Your task to perform on an android device: Open the calendar app, open the side menu, and click the "Day" option Image 0: 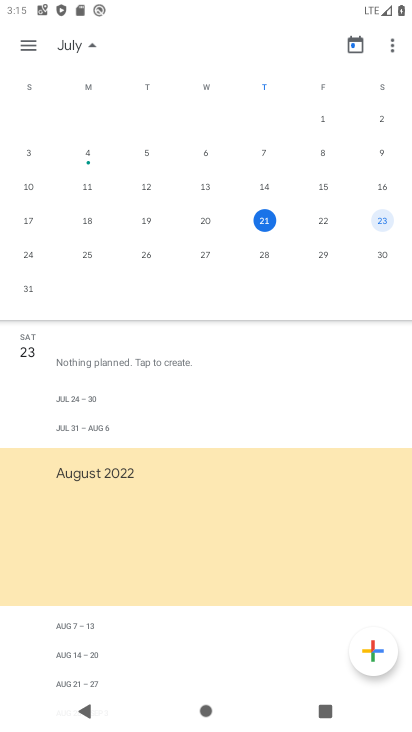
Step 0: click (23, 52)
Your task to perform on an android device: Open the calendar app, open the side menu, and click the "Day" option Image 1: 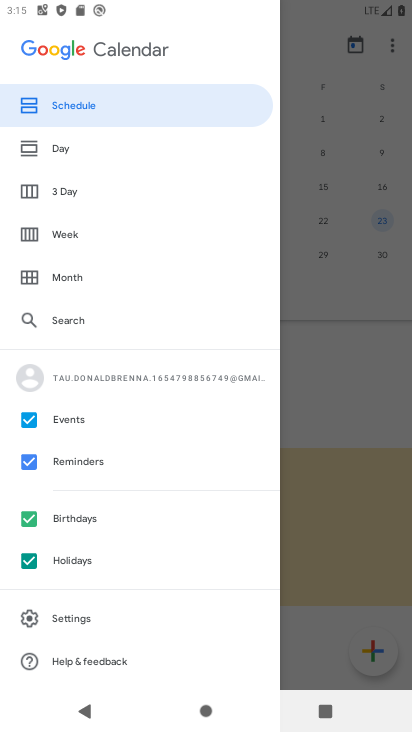
Step 1: click (64, 148)
Your task to perform on an android device: Open the calendar app, open the side menu, and click the "Day" option Image 2: 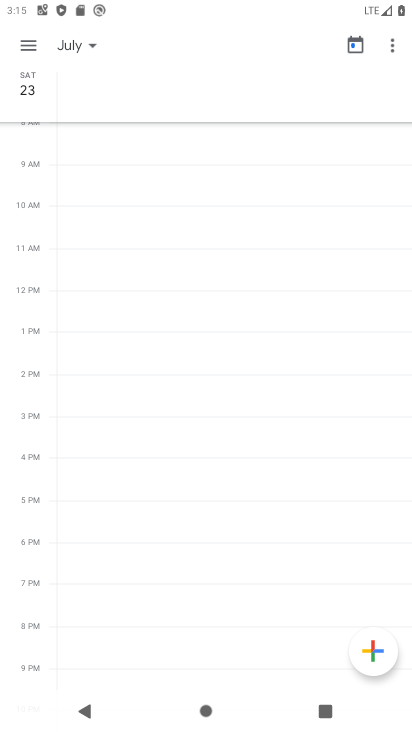
Step 2: task complete